Your task to perform on an android device: Go to sound settings Image 0: 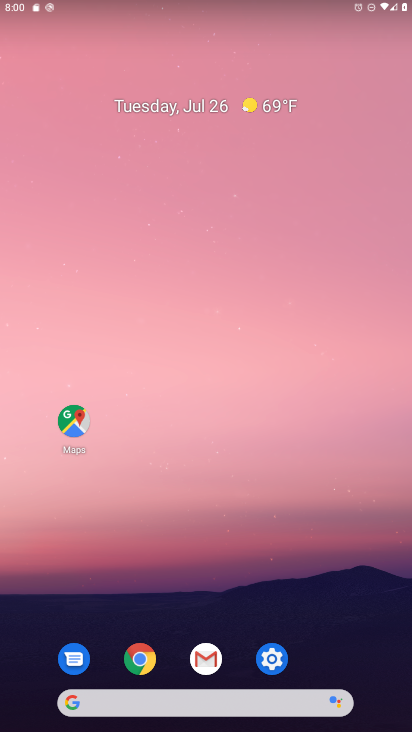
Step 0: click (265, 657)
Your task to perform on an android device: Go to sound settings Image 1: 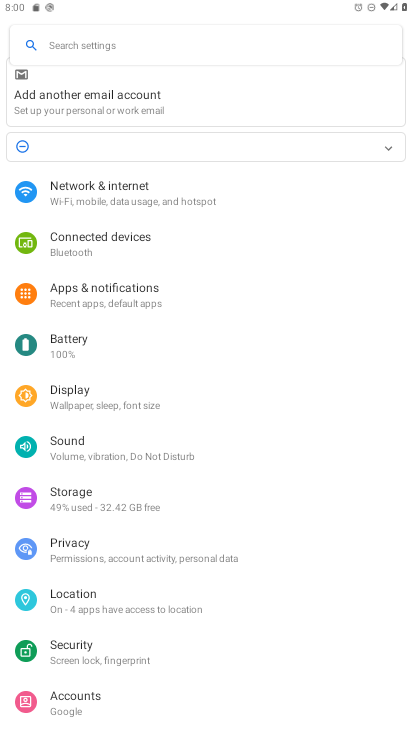
Step 1: click (102, 445)
Your task to perform on an android device: Go to sound settings Image 2: 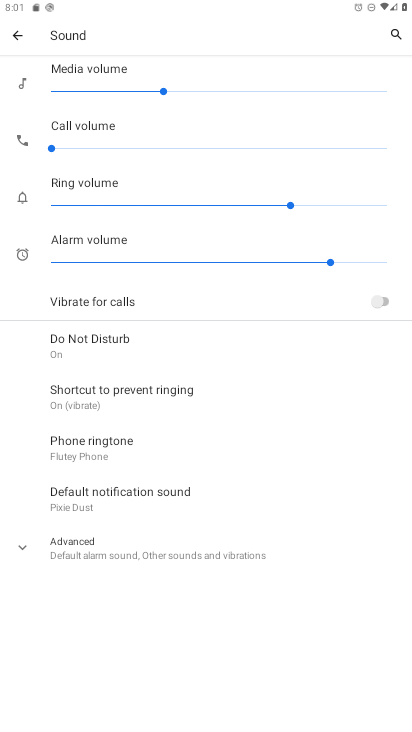
Step 2: task complete